Your task to perform on an android device: Open the map Image 0: 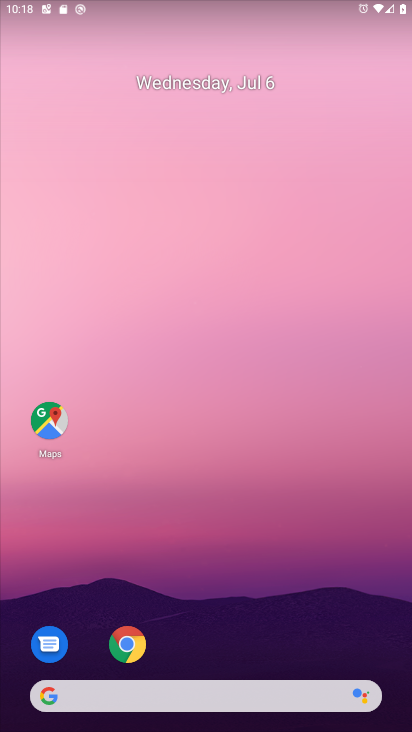
Step 0: drag from (230, 619) to (273, 216)
Your task to perform on an android device: Open the map Image 1: 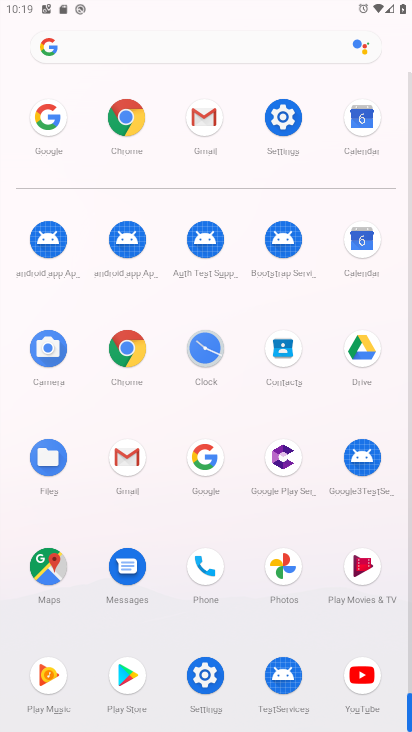
Step 1: drag from (257, 483) to (286, 279)
Your task to perform on an android device: Open the map Image 2: 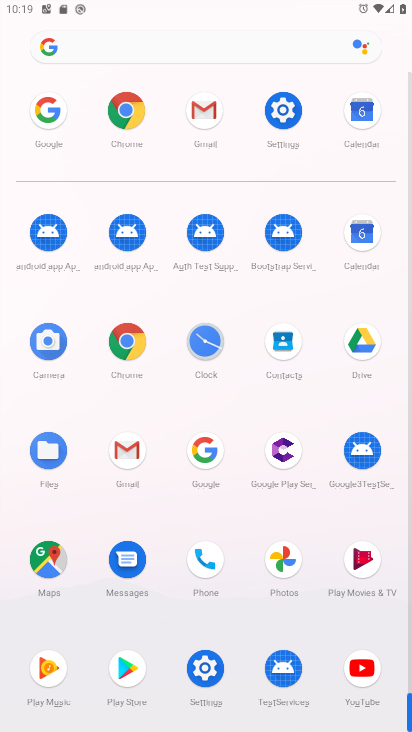
Step 2: click (55, 561)
Your task to perform on an android device: Open the map Image 3: 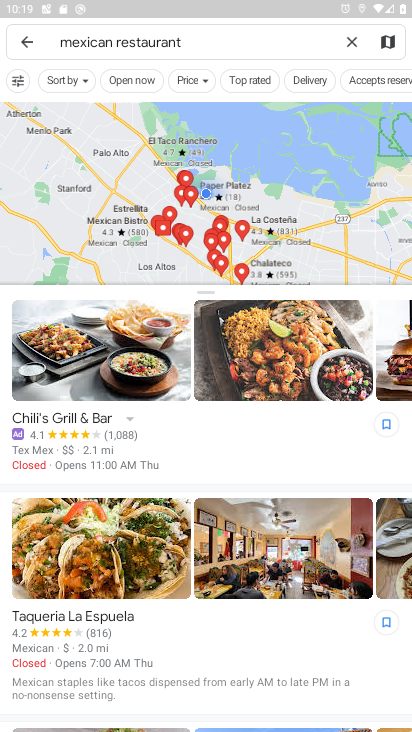
Step 3: task complete